Your task to perform on an android device: turn on javascript in the chrome app Image 0: 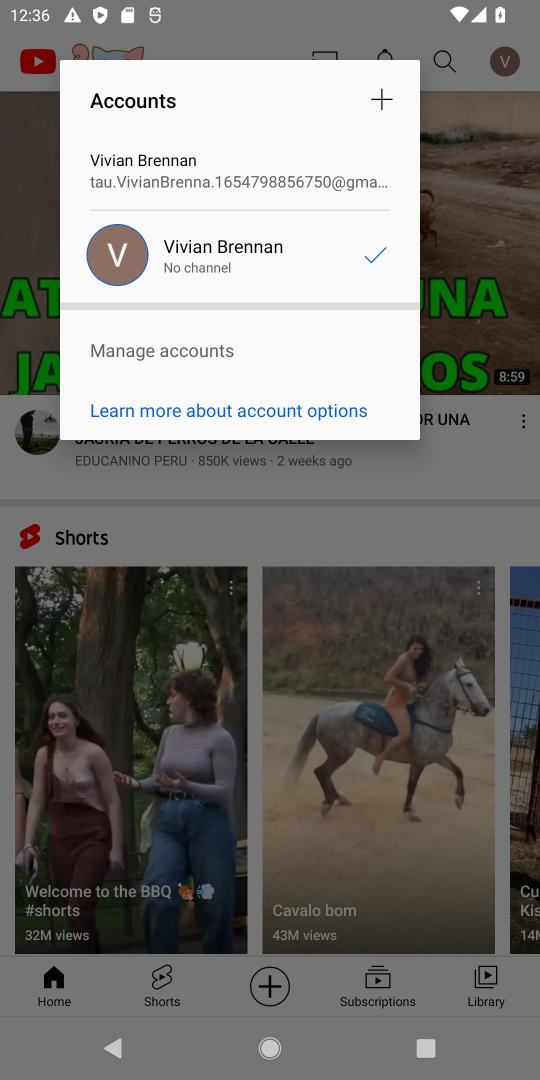
Step 0: press home button
Your task to perform on an android device: turn on javascript in the chrome app Image 1: 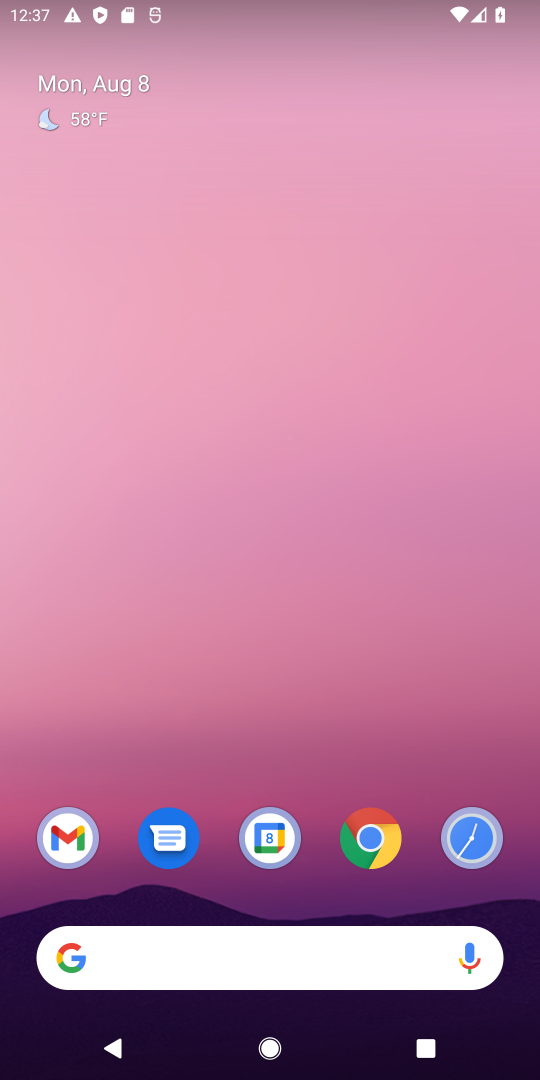
Step 1: click (358, 834)
Your task to perform on an android device: turn on javascript in the chrome app Image 2: 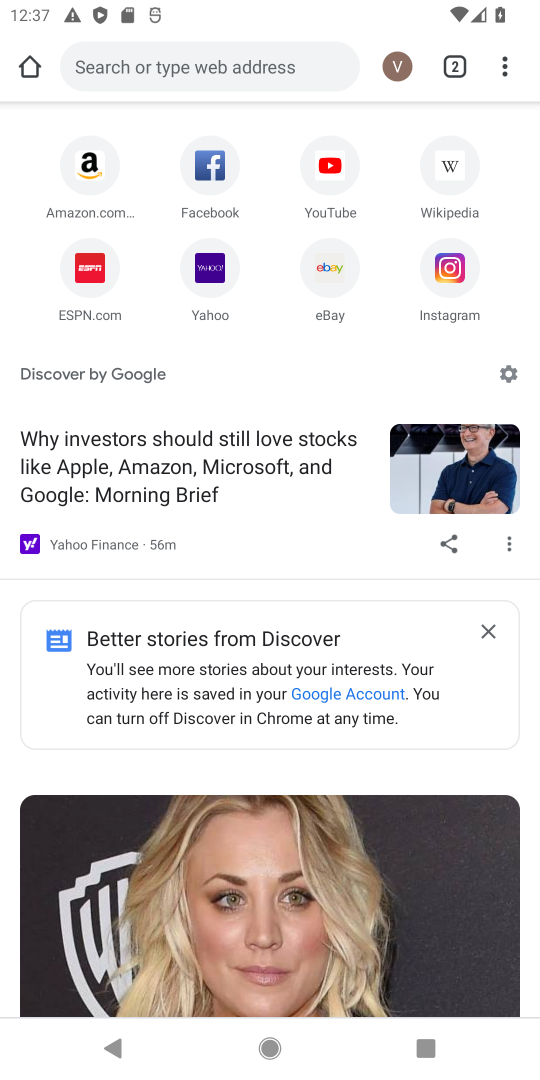
Step 2: drag from (507, 62) to (289, 669)
Your task to perform on an android device: turn on javascript in the chrome app Image 3: 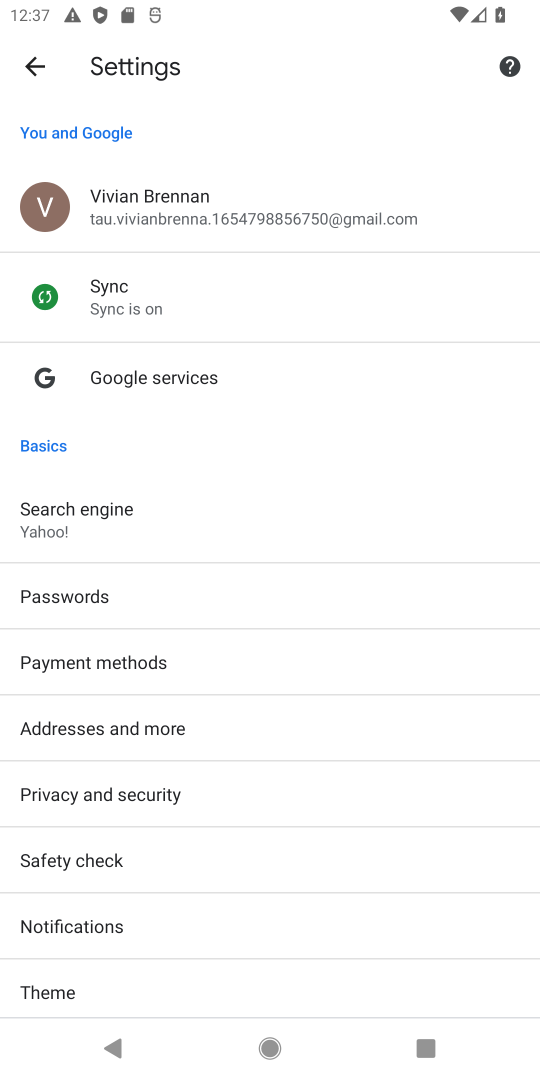
Step 3: drag from (178, 906) to (218, 159)
Your task to perform on an android device: turn on javascript in the chrome app Image 4: 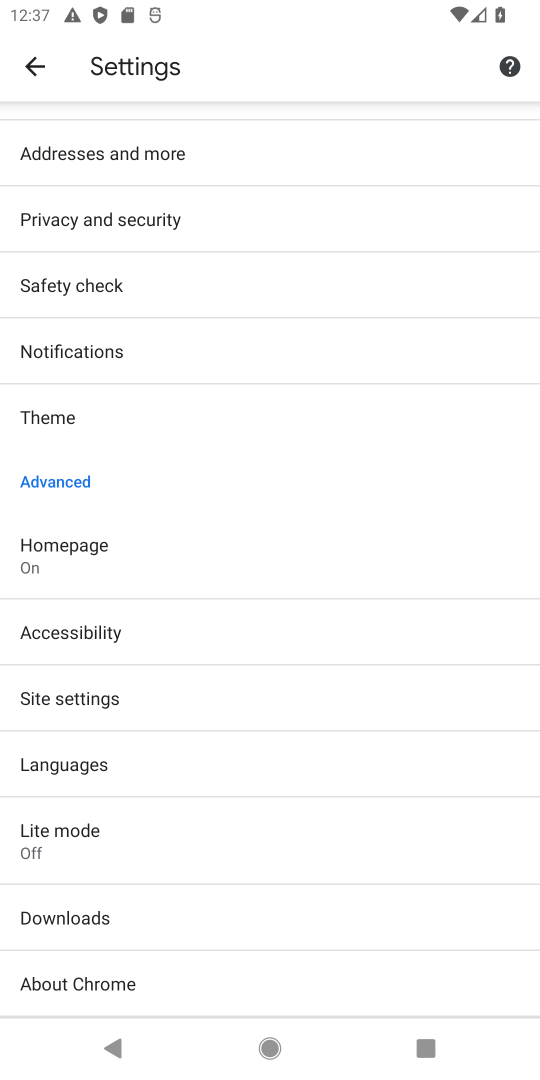
Step 4: click (53, 707)
Your task to perform on an android device: turn on javascript in the chrome app Image 5: 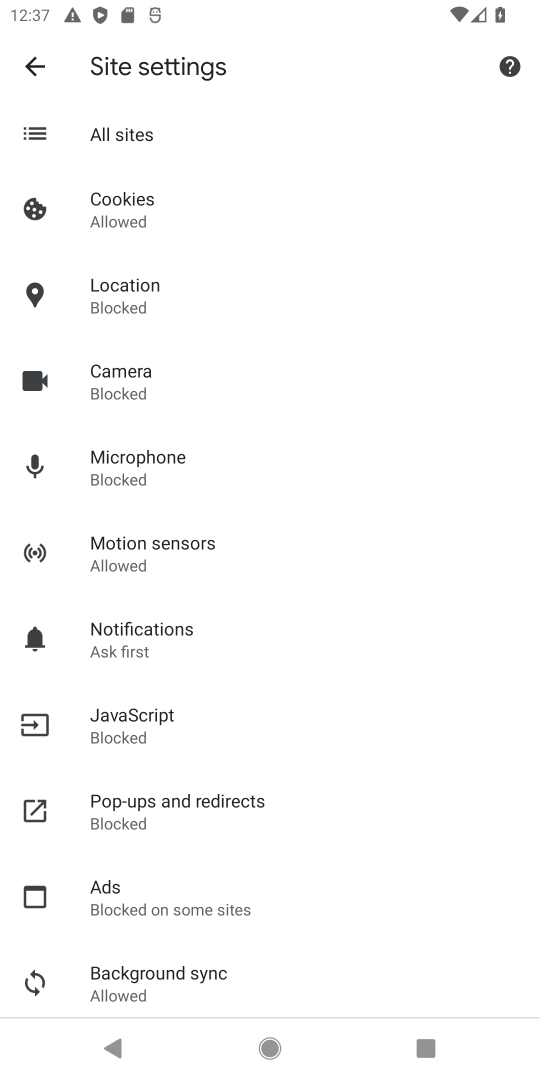
Step 5: click (126, 712)
Your task to perform on an android device: turn on javascript in the chrome app Image 6: 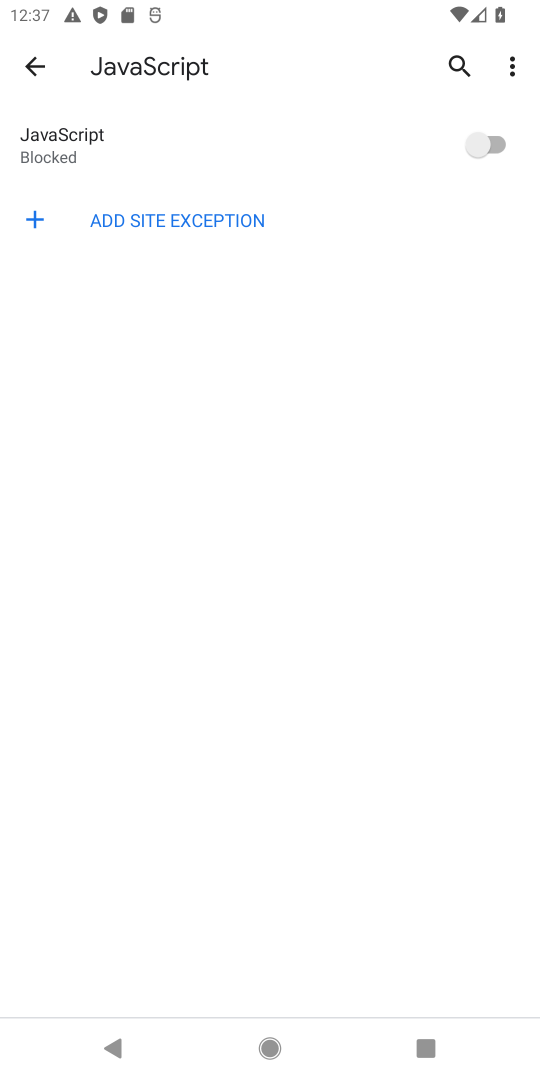
Step 6: click (486, 138)
Your task to perform on an android device: turn on javascript in the chrome app Image 7: 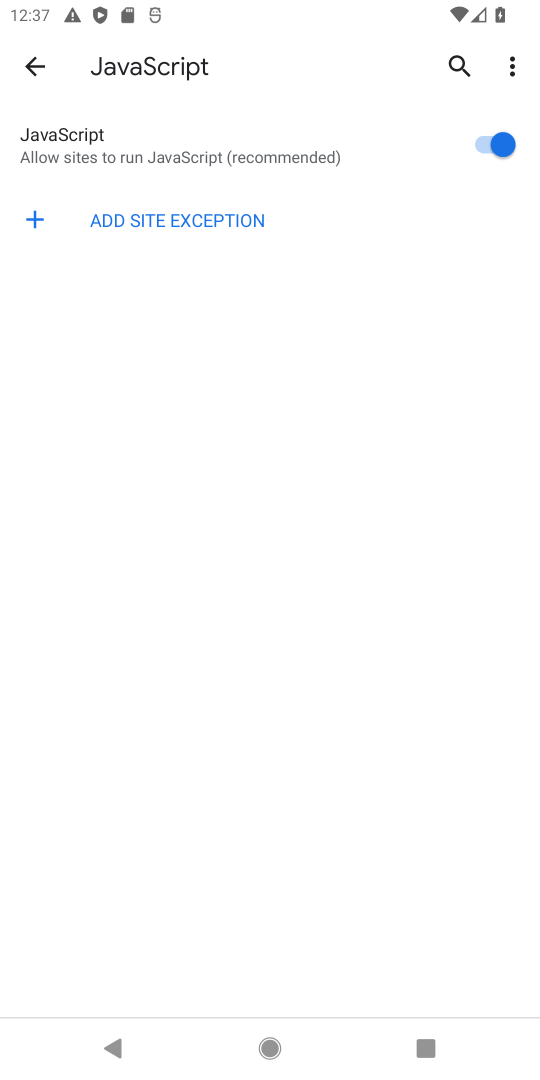
Step 7: task complete